Your task to perform on an android device: Go to Yahoo.com Image 0: 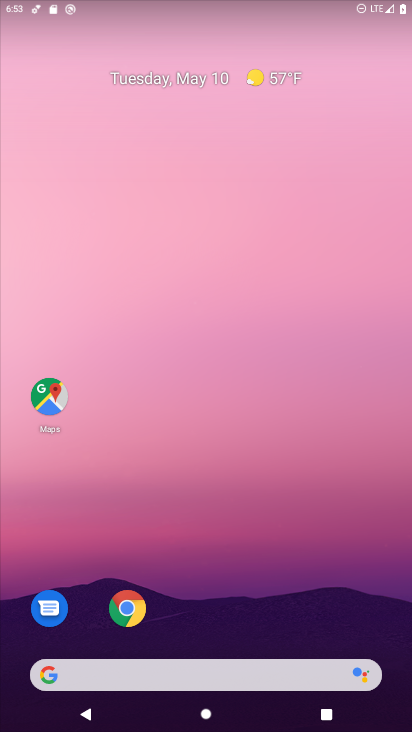
Step 0: drag from (336, 601) to (262, 17)
Your task to perform on an android device: Go to Yahoo.com Image 1: 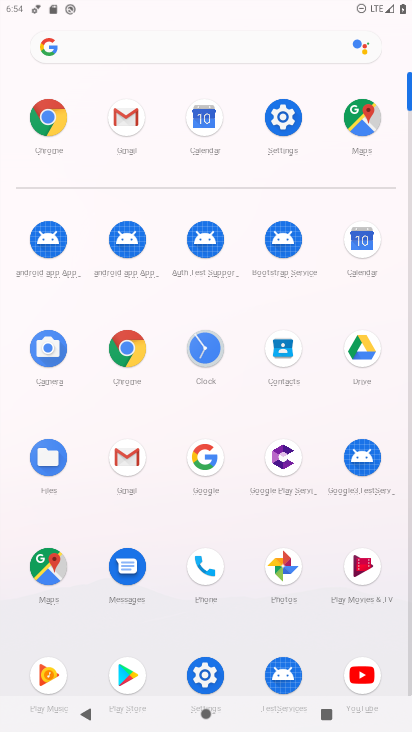
Step 1: click (58, 117)
Your task to perform on an android device: Go to Yahoo.com Image 2: 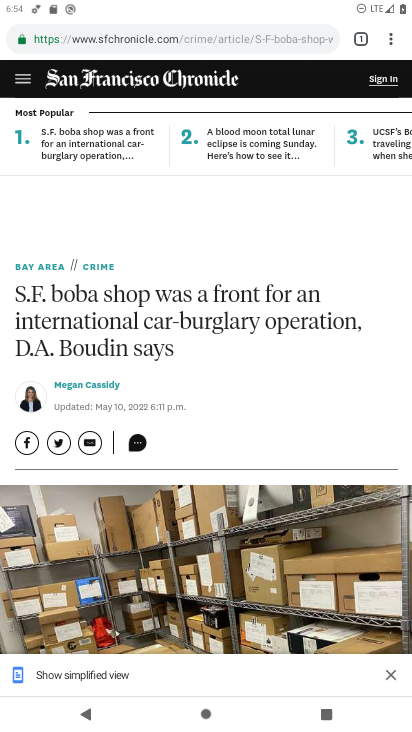
Step 2: press back button
Your task to perform on an android device: Go to Yahoo.com Image 3: 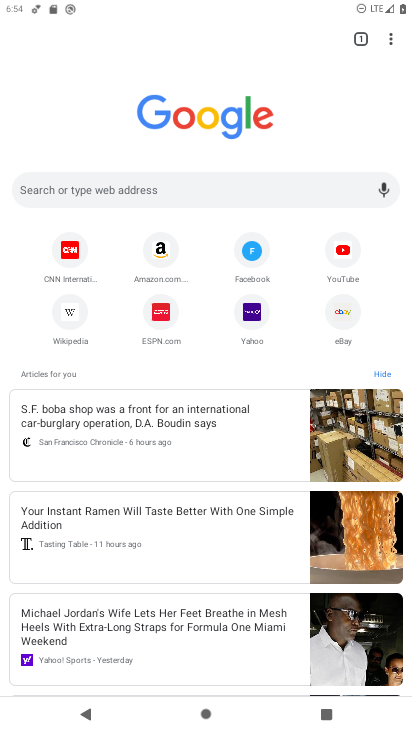
Step 3: click (243, 310)
Your task to perform on an android device: Go to Yahoo.com Image 4: 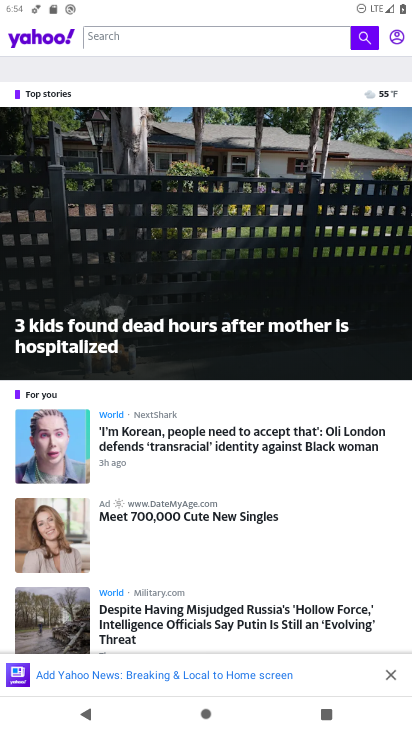
Step 4: task complete